Your task to perform on an android device: toggle priority inbox in the gmail app Image 0: 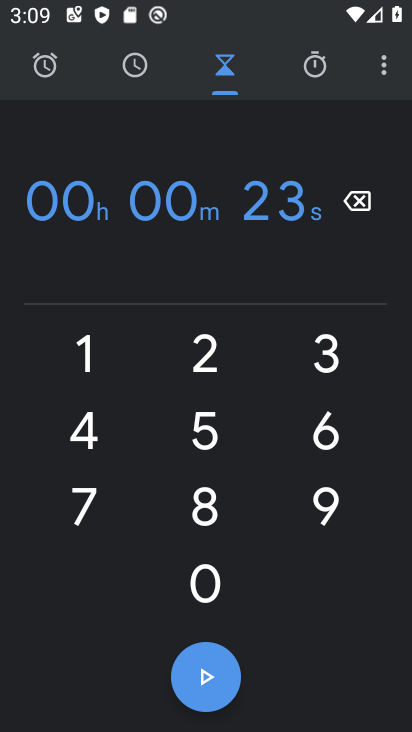
Step 0: drag from (256, 620) to (256, 205)
Your task to perform on an android device: toggle priority inbox in the gmail app Image 1: 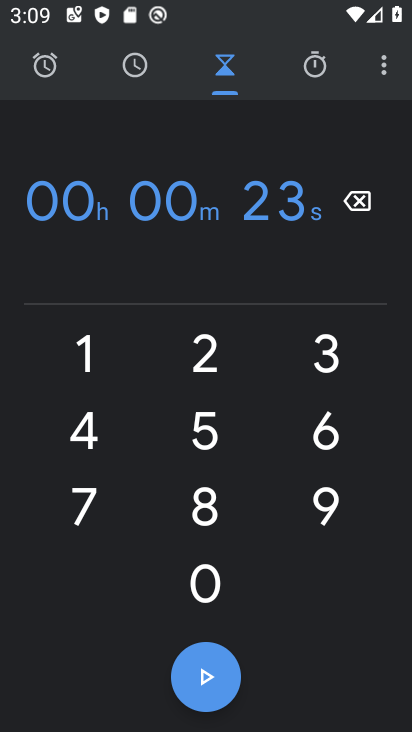
Step 1: press home button
Your task to perform on an android device: toggle priority inbox in the gmail app Image 2: 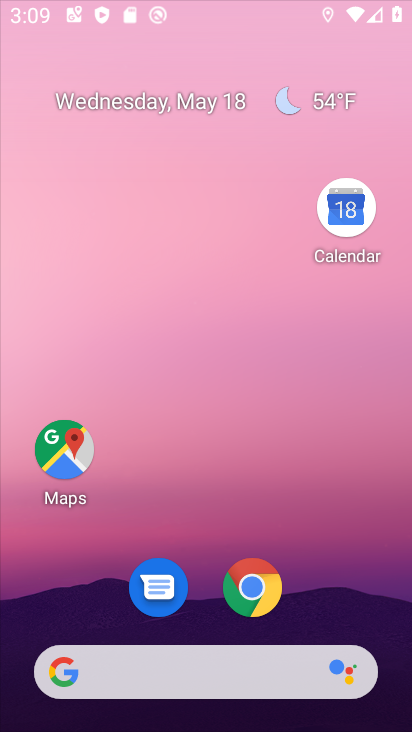
Step 2: drag from (196, 648) to (196, 164)
Your task to perform on an android device: toggle priority inbox in the gmail app Image 3: 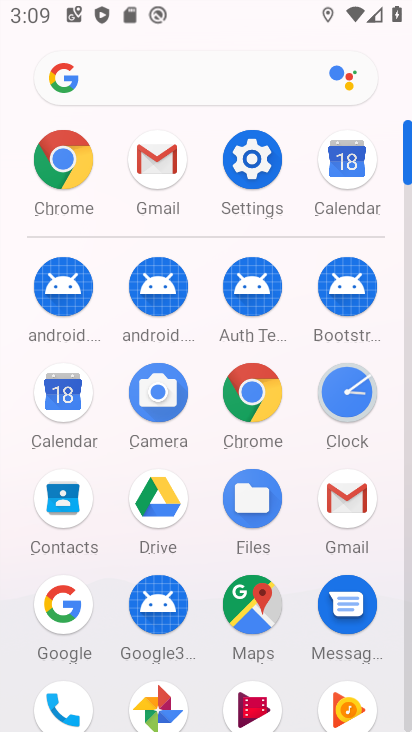
Step 3: click (358, 509)
Your task to perform on an android device: toggle priority inbox in the gmail app Image 4: 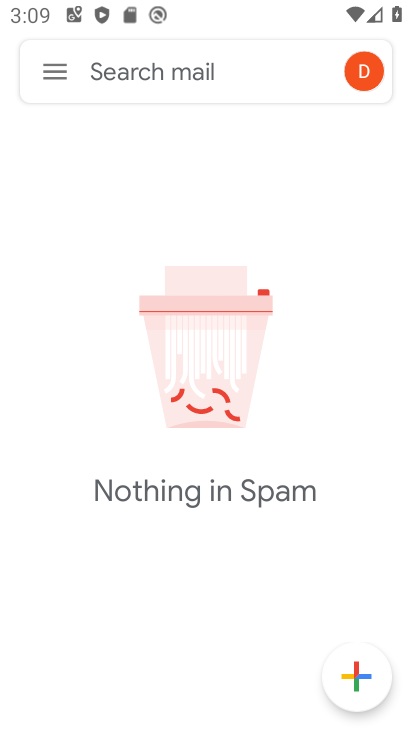
Step 4: drag from (255, 604) to (280, 334)
Your task to perform on an android device: toggle priority inbox in the gmail app Image 5: 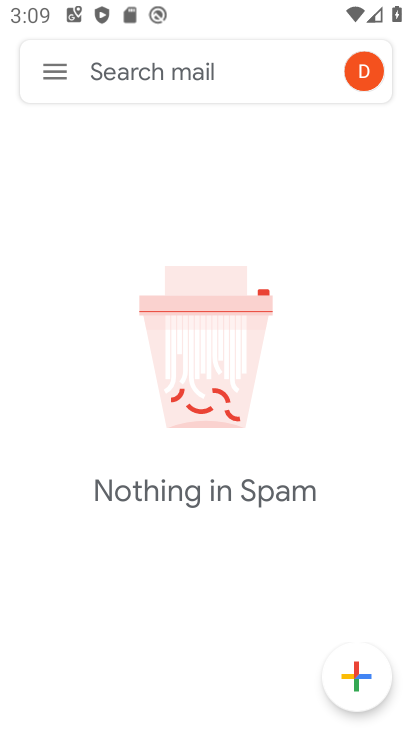
Step 5: click (45, 79)
Your task to perform on an android device: toggle priority inbox in the gmail app Image 6: 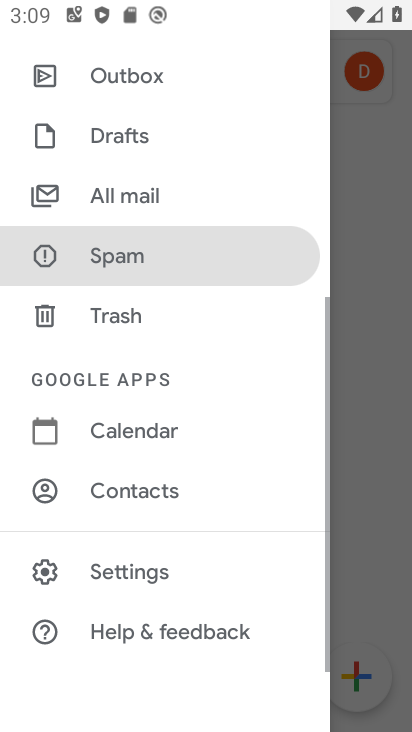
Step 6: drag from (109, 667) to (259, 177)
Your task to perform on an android device: toggle priority inbox in the gmail app Image 7: 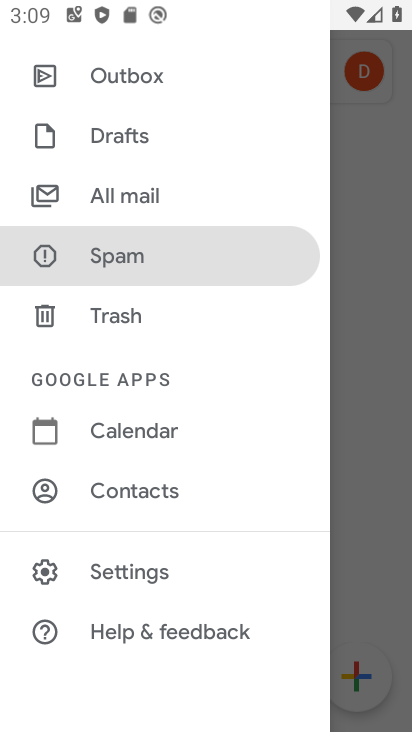
Step 7: click (126, 563)
Your task to perform on an android device: toggle priority inbox in the gmail app Image 8: 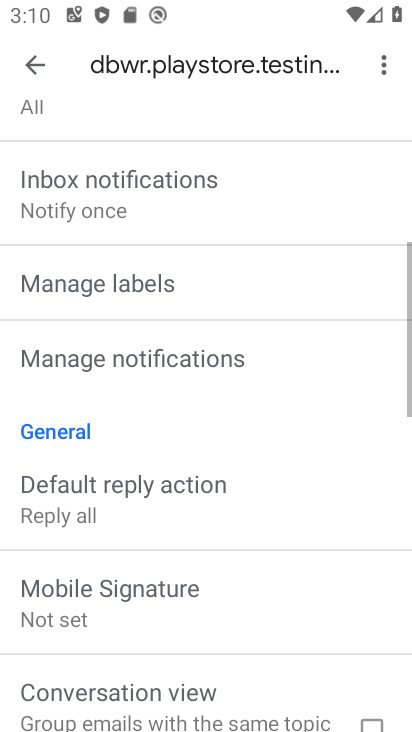
Step 8: drag from (113, 491) to (237, 100)
Your task to perform on an android device: toggle priority inbox in the gmail app Image 9: 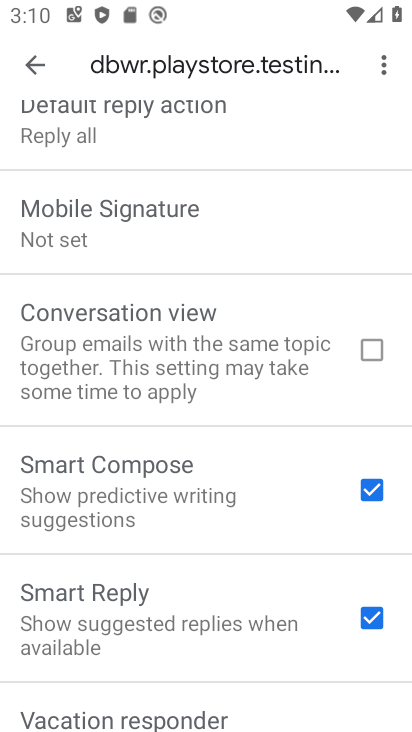
Step 9: drag from (177, 598) to (302, 183)
Your task to perform on an android device: toggle priority inbox in the gmail app Image 10: 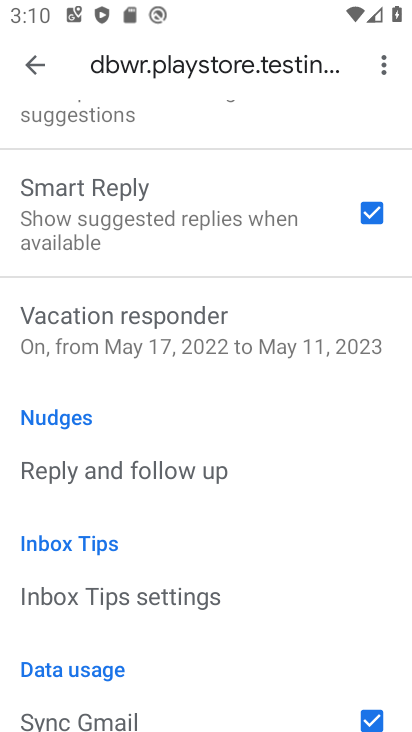
Step 10: drag from (186, 251) to (241, 731)
Your task to perform on an android device: toggle priority inbox in the gmail app Image 11: 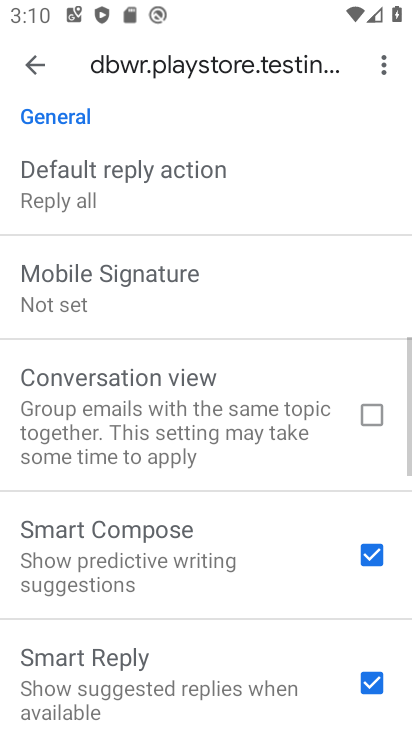
Step 11: drag from (198, 136) to (232, 729)
Your task to perform on an android device: toggle priority inbox in the gmail app Image 12: 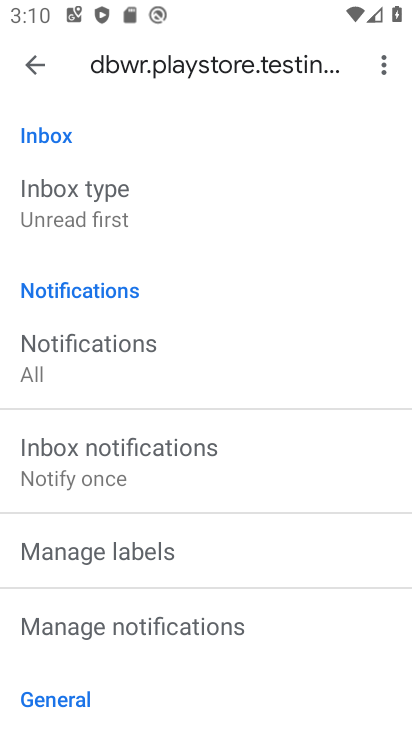
Step 12: click (106, 216)
Your task to perform on an android device: toggle priority inbox in the gmail app Image 13: 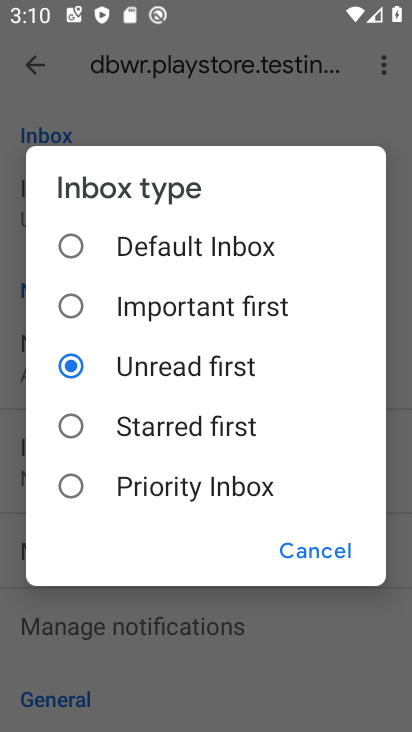
Step 13: click (127, 492)
Your task to perform on an android device: toggle priority inbox in the gmail app Image 14: 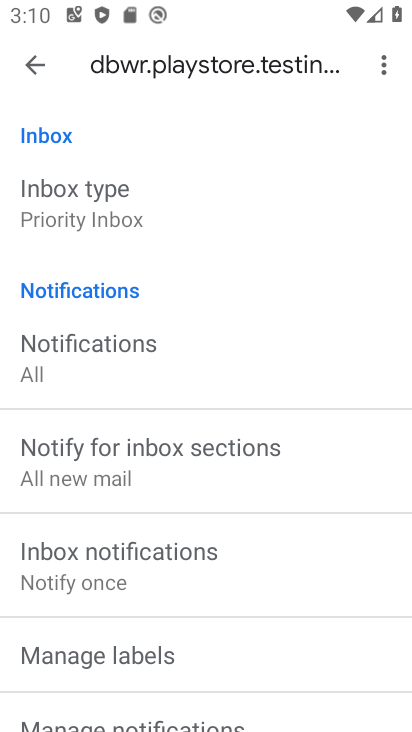
Step 14: task complete